Your task to perform on an android device: set default search engine in the chrome app Image 0: 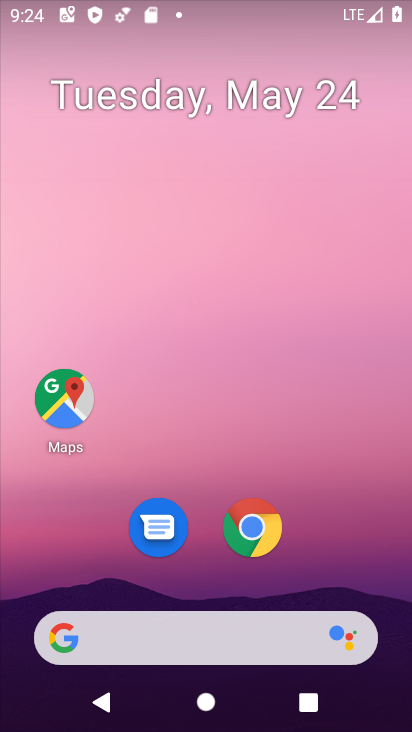
Step 0: drag from (202, 567) to (191, 0)
Your task to perform on an android device: set default search engine in the chrome app Image 1: 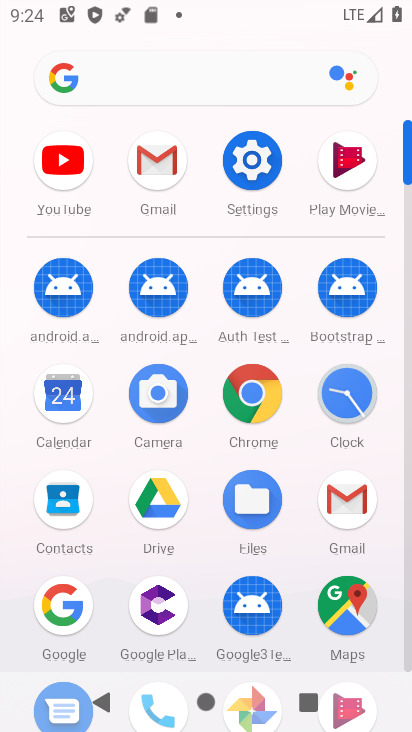
Step 1: click (246, 384)
Your task to perform on an android device: set default search engine in the chrome app Image 2: 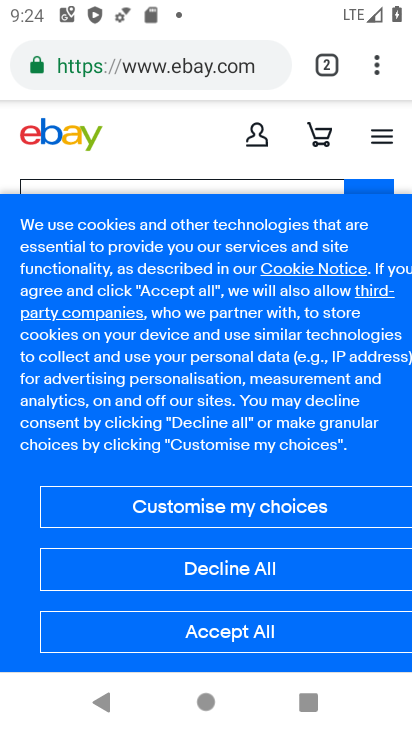
Step 2: click (376, 67)
Your task to perform on an android device: set default search engine in the chrome app Image 3: 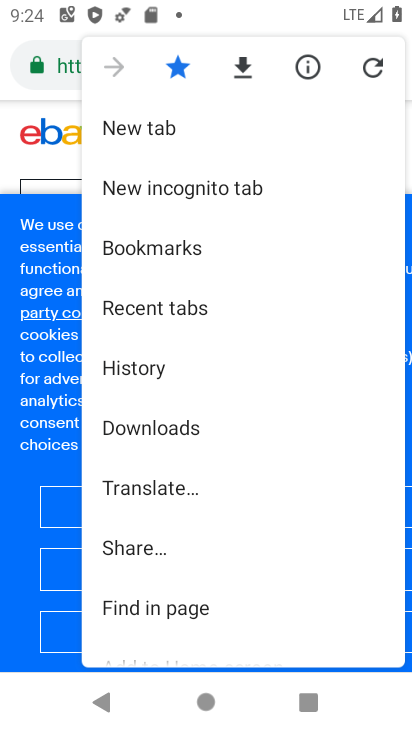
Step 3: drag from (179, 515) to (236, 249)
Your task to perform on an android device: set default search engine in the chrome app Image 4: 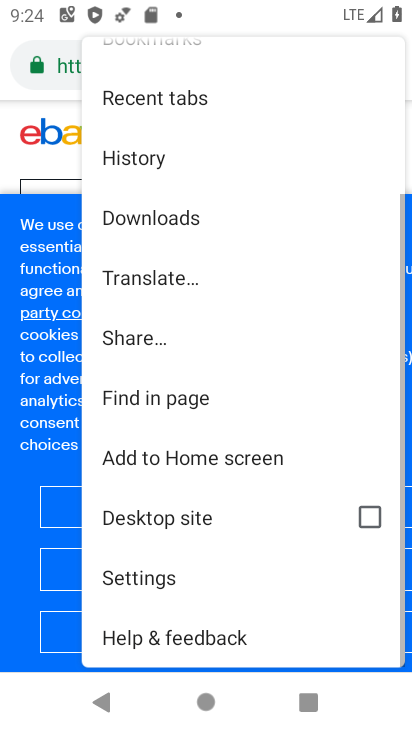
Step 4: click (159, 577)
Your task to perform on an android device: set default search engine in the chrome app Image 5: 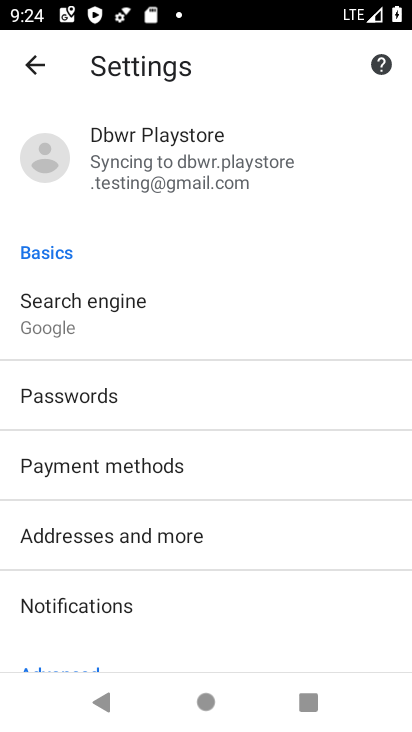
Step 5: click (111, 314)
Your task to perform on an android device: set default search engine in the chrome app Image 6: 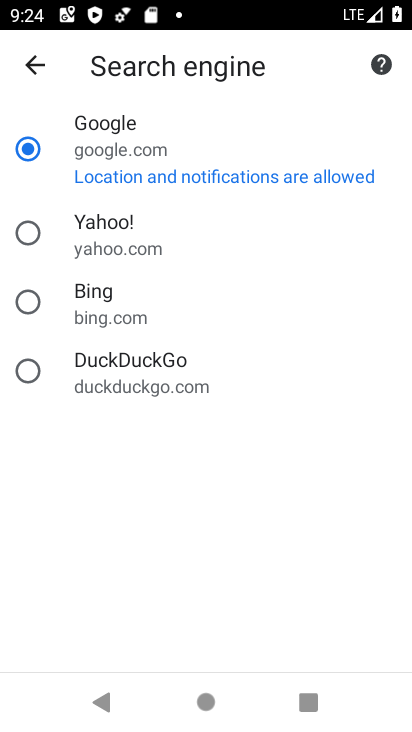
Step 6: click (18, 147)
Your task to perform on an android device: set default search engine in the chrome app Image 7: 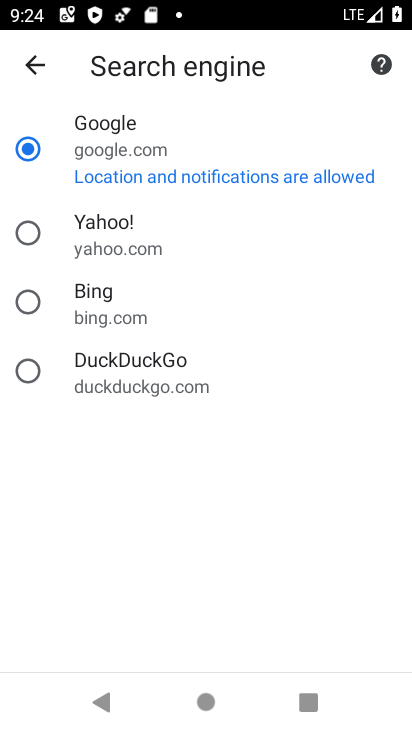
Step 7: task complete